Your task to perform on an android device: Open ESPN.com Image 0: 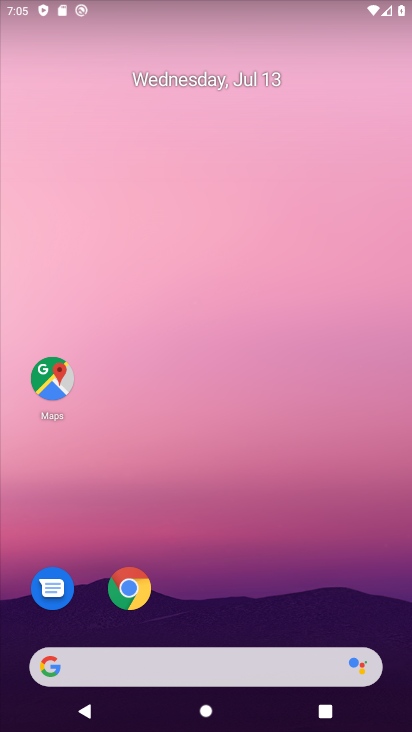
Step 0: click (128, 588)
Your task to perform on an android device: Open ESPN.com Image 1: 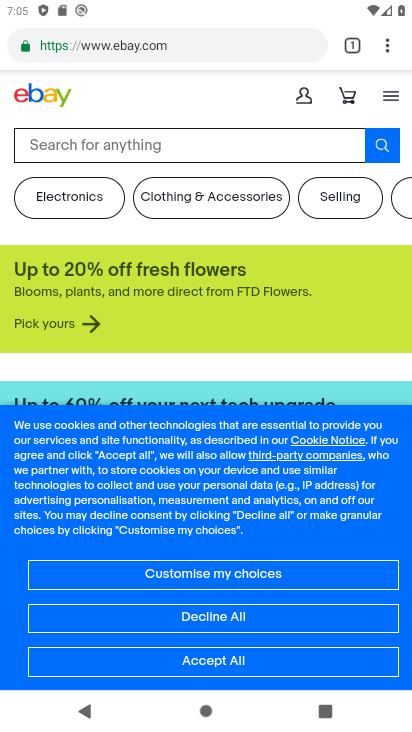
Step 1: click (385, 41)
Your task to perform on an android device: Open ESPN.com Image 2: 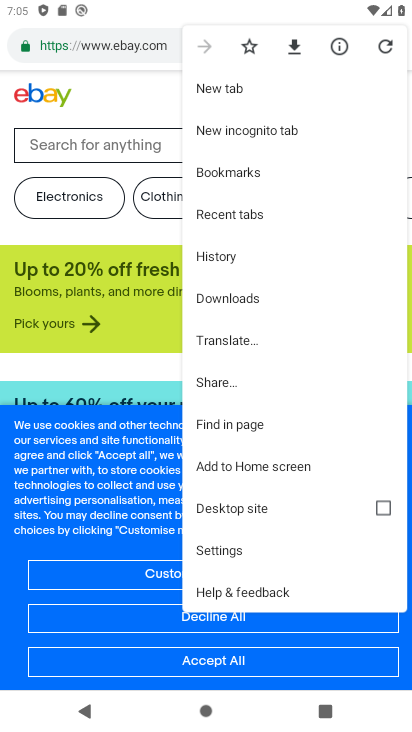
Step 2: click (237, 84)
Your task to perform on an android device: Open ESPN.com Image 3: 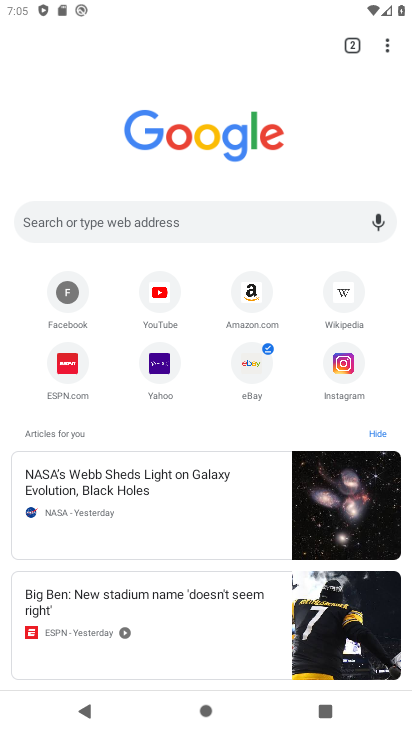
Step 3: click (65, 364)
Your task to perform on an android device: Open ESPN.com Image 4: 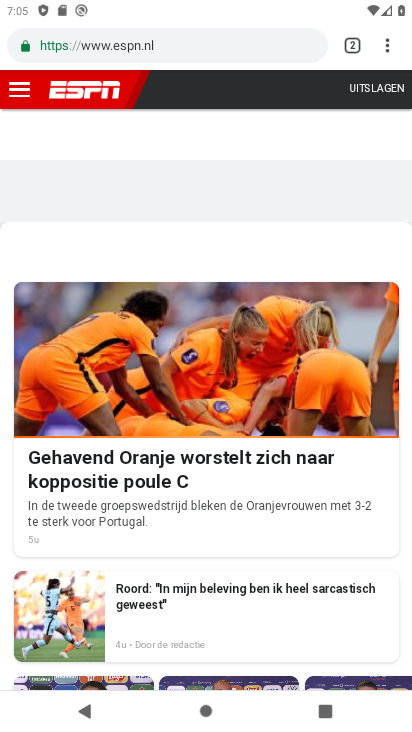
Step 4: task complete